Your task to perform on an android device: When is my next appointment? Image 0: 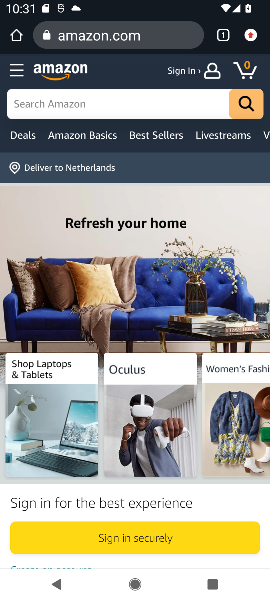
Step 0: press home button
Your task to perform on an android device: When is my next appointment? Image 1: 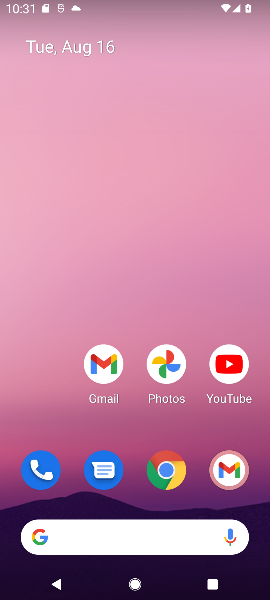
Step 1: drag from (36, 398) to (122, 19)
Your task to perform on an android device: When is my next appointment? Image 2: 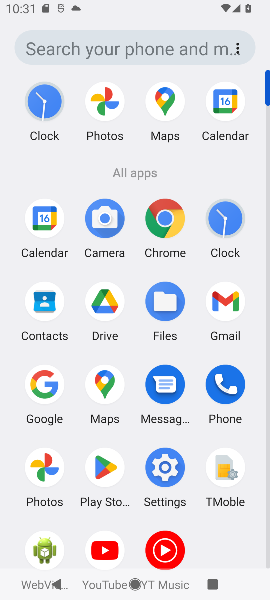
Step 2: click (50, 218)
Your task to perform on an android device: When is my next appointment? Image 3: 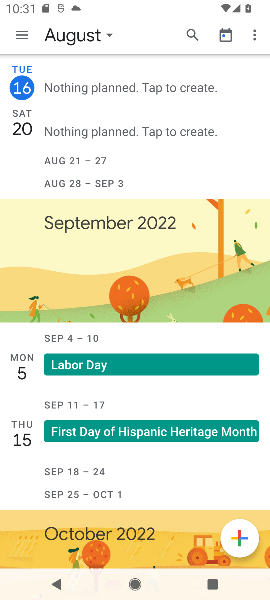
Step 3: task complete